Your task to perform on an android device: Open Chrome and go to settings Image 0: 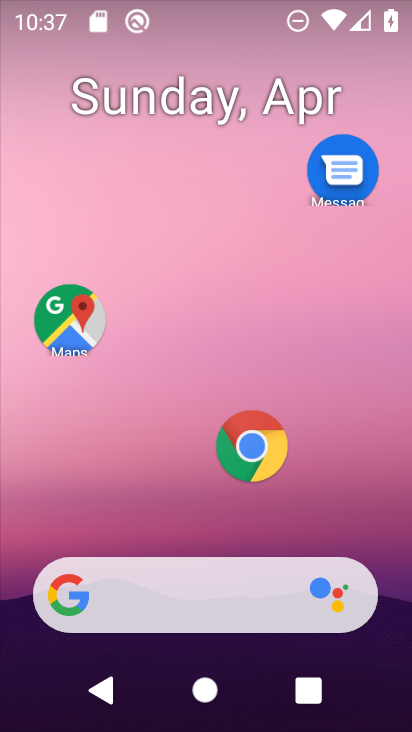
Step 0: drag from (177, 508) to (252, 180)
Your task to perform on an android device: Open Chrome and go to settings Image 1: 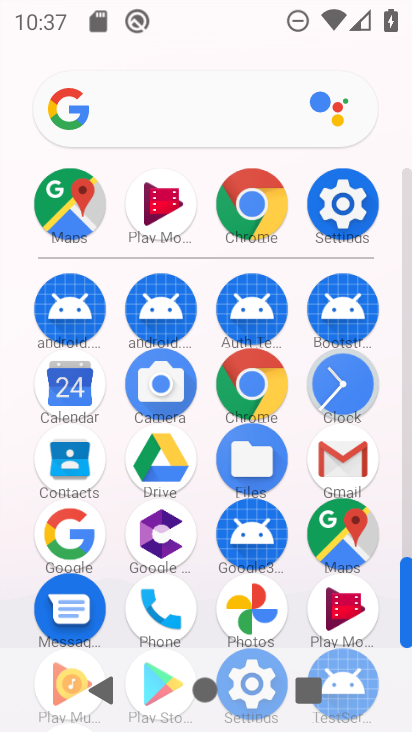
Step 1: click (244, 197)
Your task to perform on an android device: Open Chrome and go to settings Image 2: 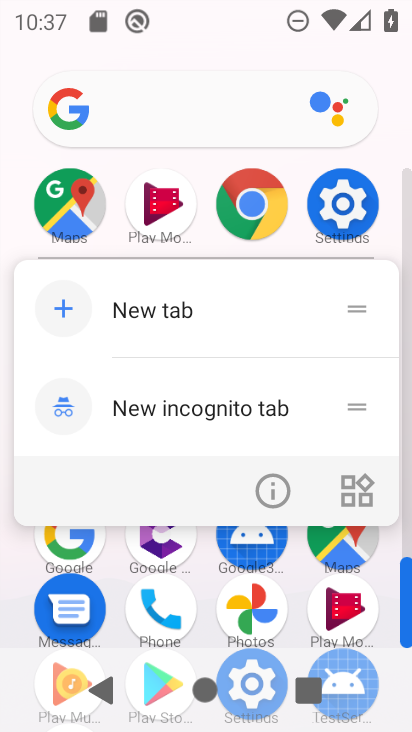
Step 2: click (272, 488)
Your task to perform on an android device: Open Chrome and go to settings Image 3: 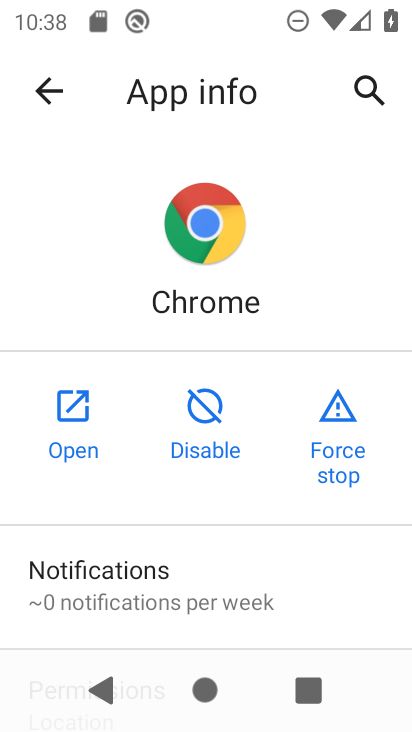
Step 3: click (100, 426)
Your task to perform on an android device: Open Chrome and go to settings Image 4: 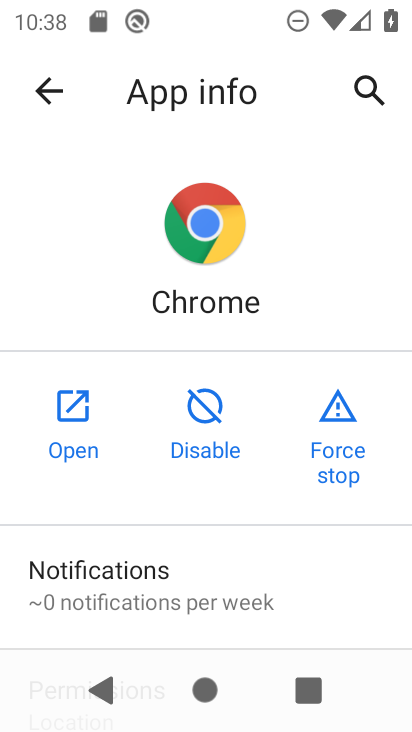
Step 4: click (76, 421)
Your task to perform on an android device: Open Chrome and go to settings Image 5: 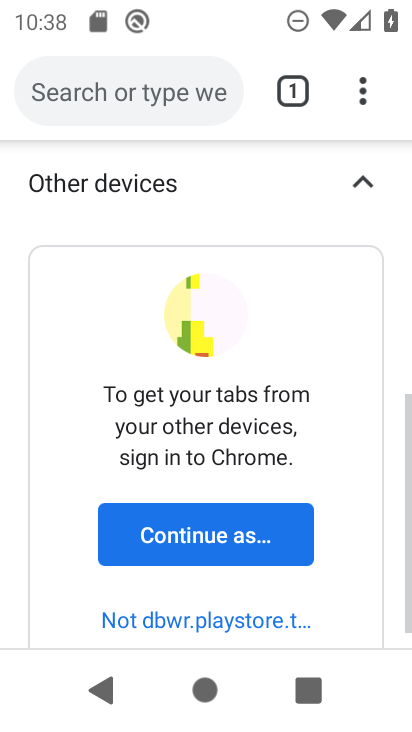
Step 5: drag from (361, 97) to (167, 466)
Your task to perform on an android device: Open Chrome and go to settings Image 6: 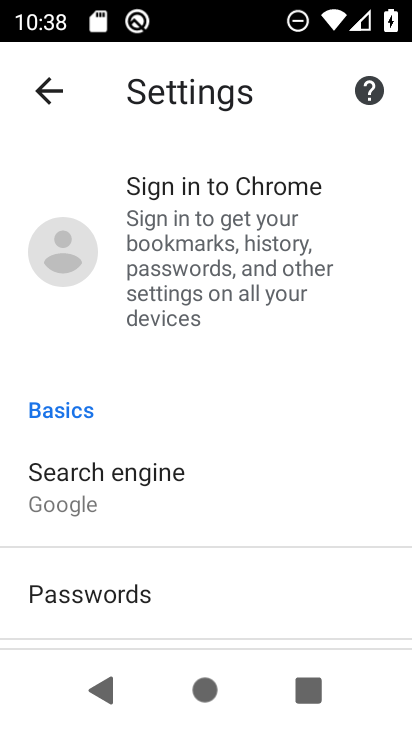
Step 6: drag from (172, 533) to (253, 117)
Your task to perform on an android device: Open Chrome and go to settings Image 7: 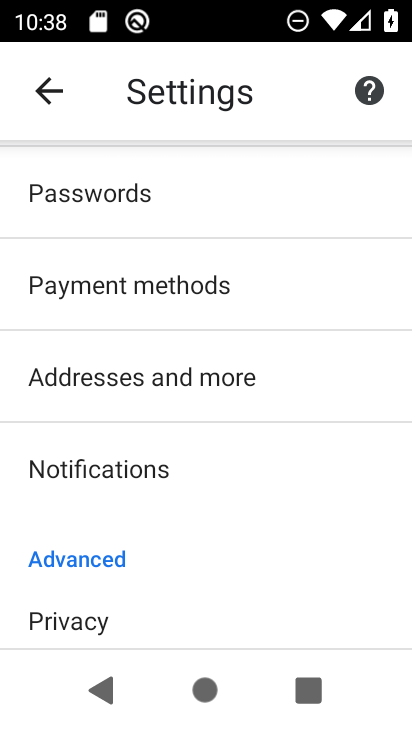
Step 7: drag from (154, 553) to (262, 197)
Your task to perform on an android device: Open Chrome and go to settings Image 8: 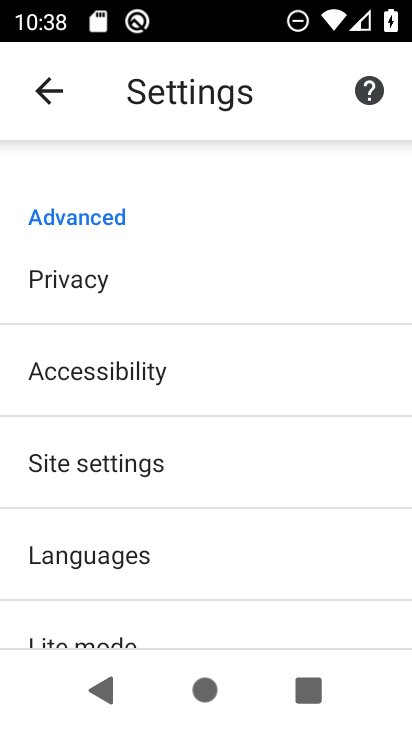
Step 8: drag from (163, 592) to (256, 152)
Your task to perform on an android device: Open Chrome and go to settings Image 9: 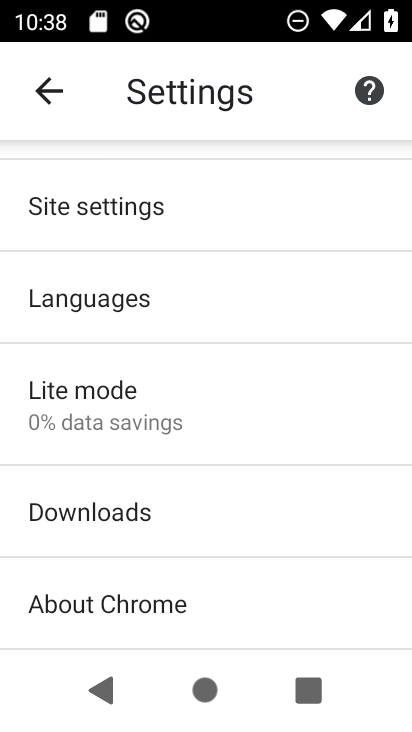
Step 9: drag from (136, 564) to (201, 197)
Your task to perform on an android device: Open Chrome and go to settings Image 10: 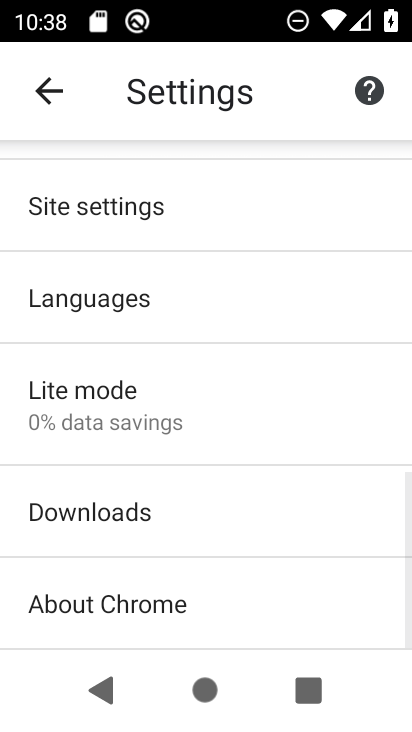
Step 10: click (165, 193)
Your task to perform on an android device: Open Chrome and go to settings Image 11: 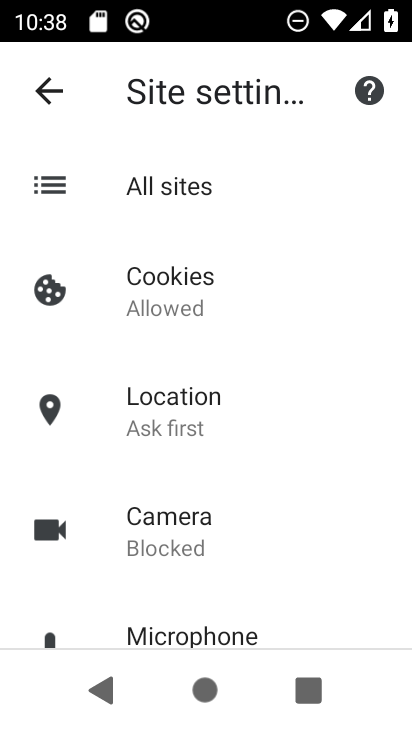
Step 11: task complete